Your task to perform on an android device: Go to sound settings Image 0: 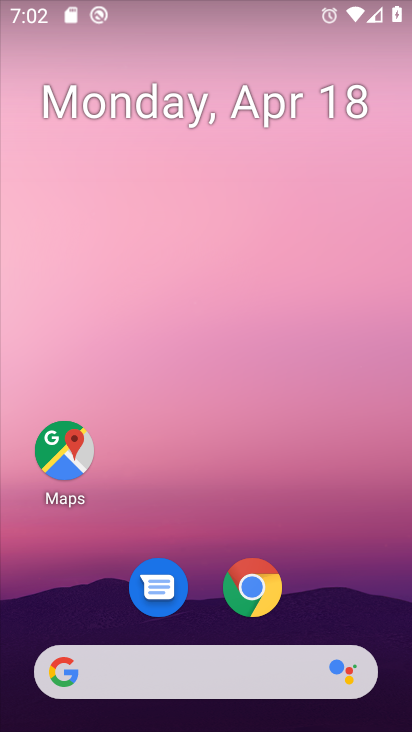
Step 0: drag from (325, 581) to (323, 86)
Your task to perform on an android device: Go to sound settings Image 1: 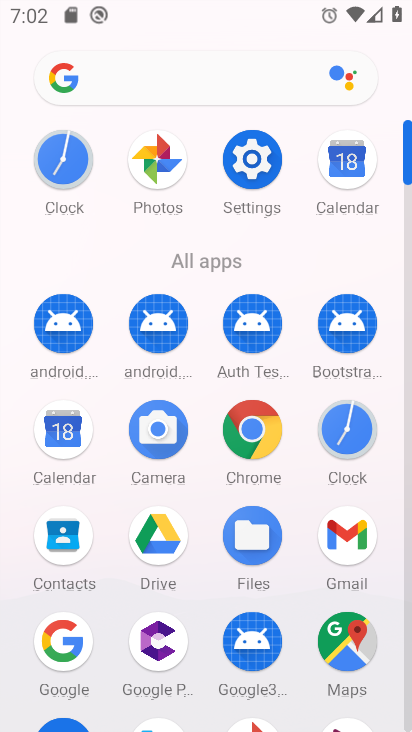
Step 1: click (260, 187)
Your task to perform on an android device: Go to sound settings Image 2: 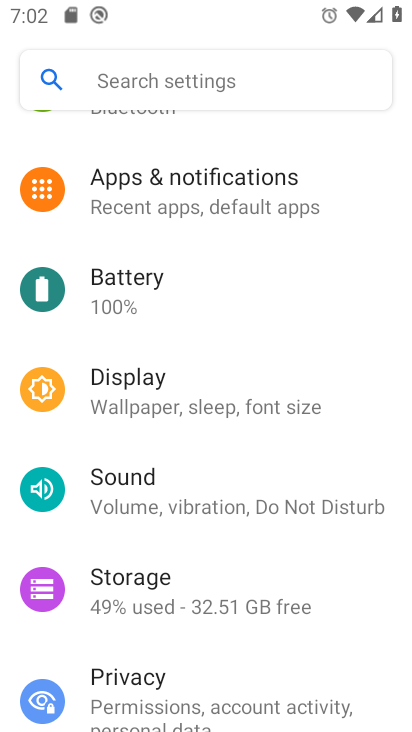
Step 2: drag from (255, 252) to (252, 600)
Your task to perform on an android device: Go to sound settings Image 3: 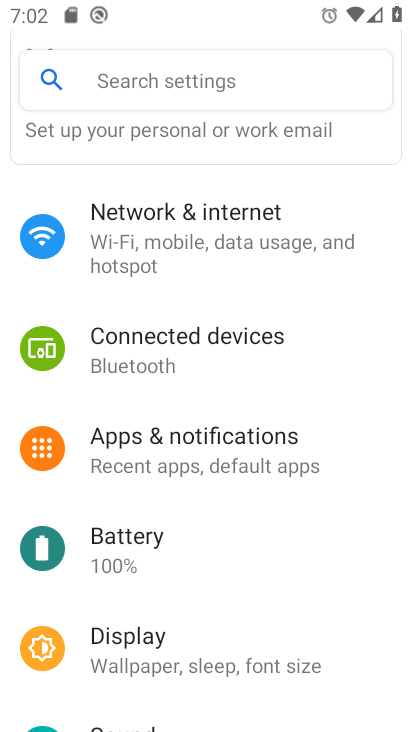
Step 3: drag from (252, 600) to (283, 314)
Your task to perform on an android device: Go to sound settings Image 4: 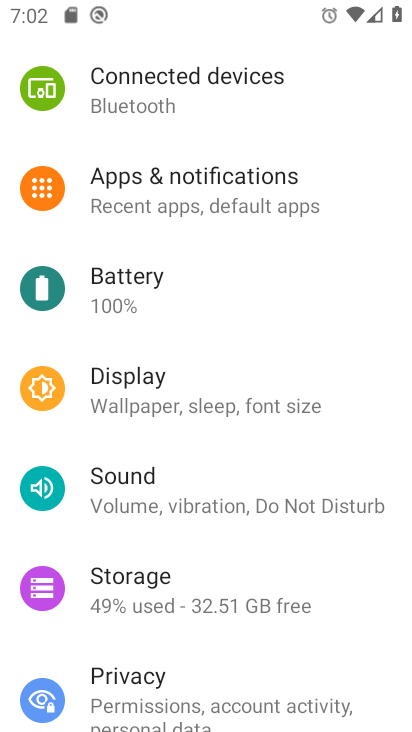
Step 4: click (230, 473)
Your task to perform on an android device: Go to sound settings Image 5: 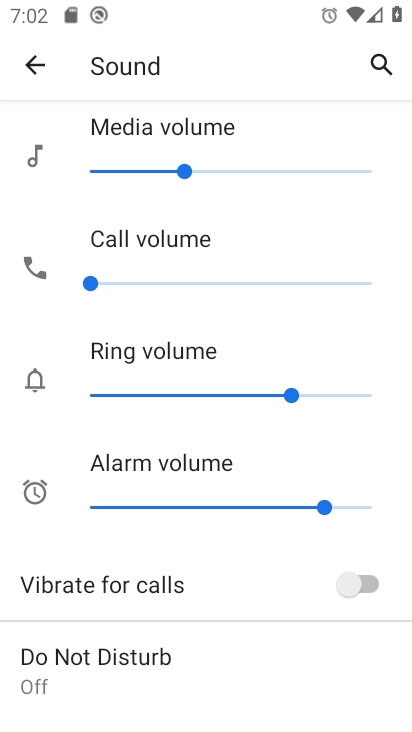
Step 5: task complete